Your task to perform on an android device: toggle javascript in the chrome app Image 0: 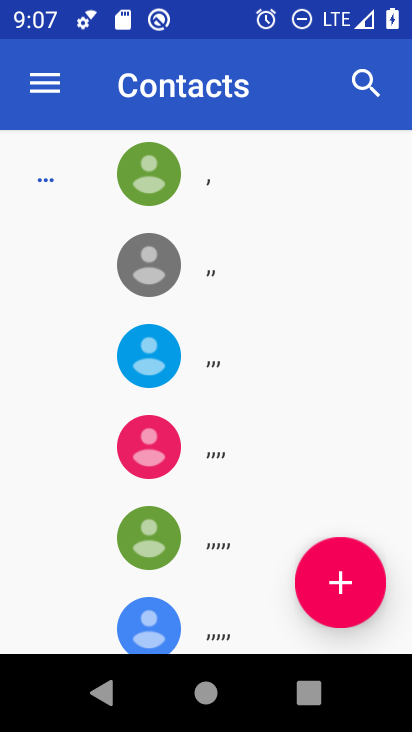
Step 0: press home button
Your task to perform on an android device: toggle javascript in the chrome app Image 1: 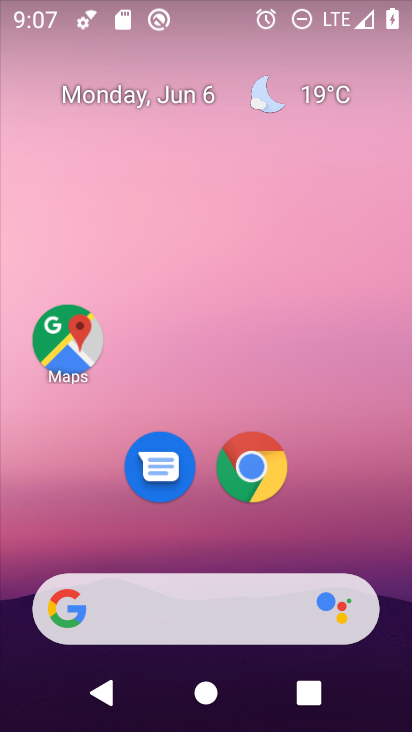
Step 1: drag from (342, 518) to (340, 146)
Your task to perform on an android device: toggle javascript in the chrome app Image 2: 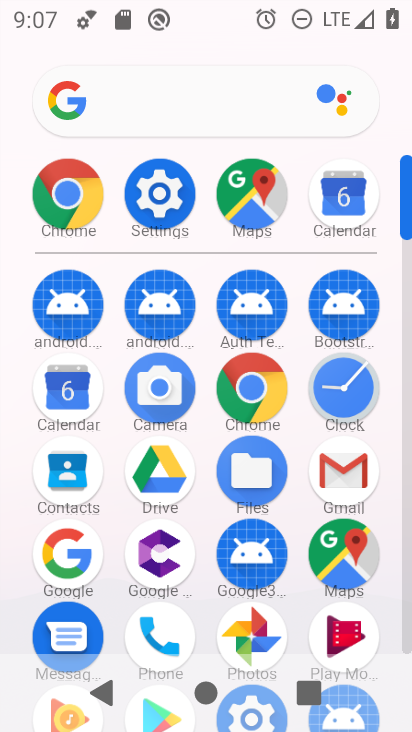
Step 2: click (261, 396)
Your task to perform on an android device: toggle javascript in the chrome app Image 3: 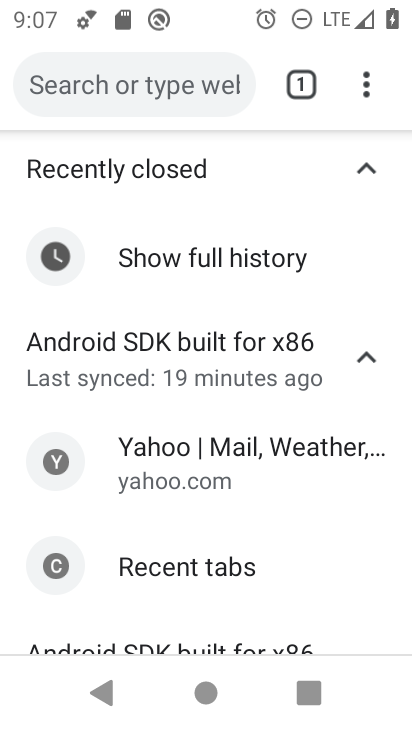
Step 3: click (368, 84)
Your task to perform on an android device: toggle javascript in the chrome app Image 4: 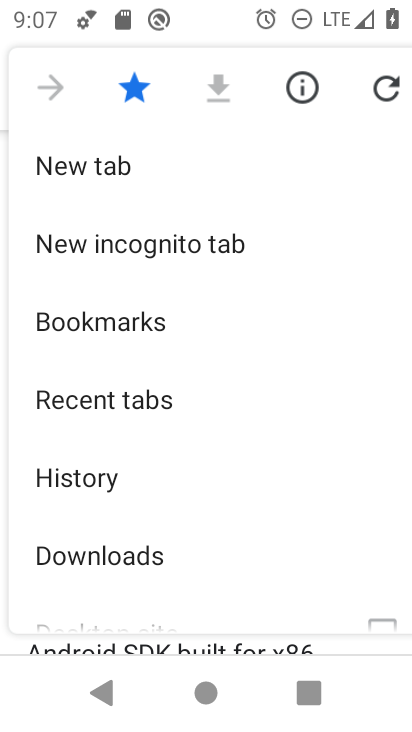
Step 4: drag from (290, 497) to (328, 305)
Your task to perform on an android device: toggle javascript in the chrome app Image 5: 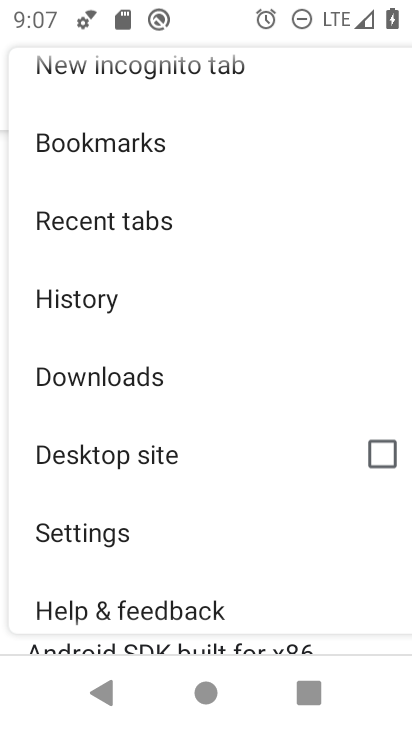
Step 5: drag from (276, 457) to (270, 315)
Your task to perform on an android device: toggle javascript in the chrome app Image 6: 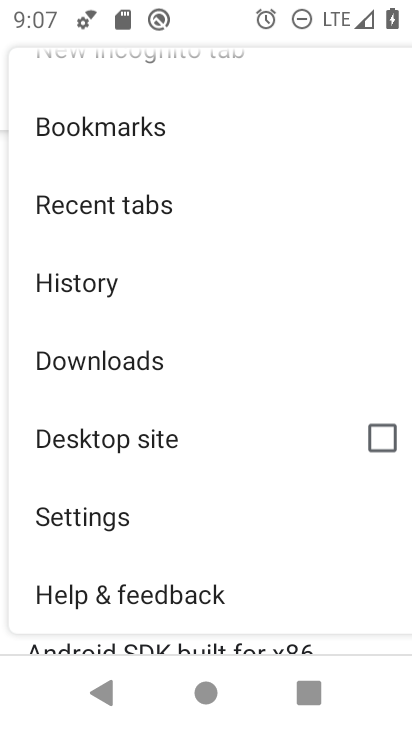
Step 6: click (116, 528)
Your task to perform on an android device: toggle javascript in the chrome app Image 7: 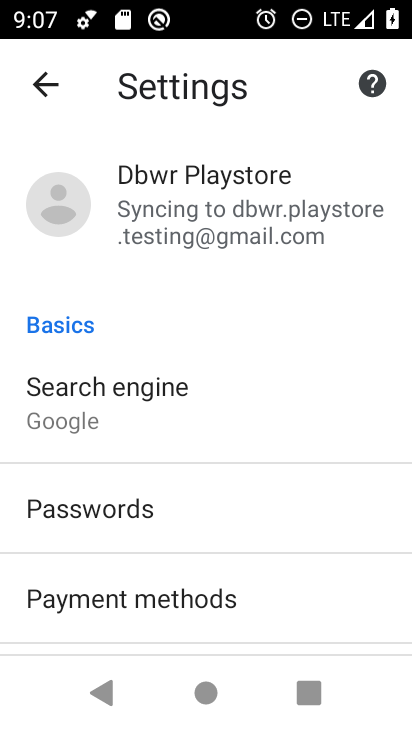
Step 7: drag from (318, 451) to (331, 332)
Your task to perform on an android device: toggle javascript in the chrome app Image 8: 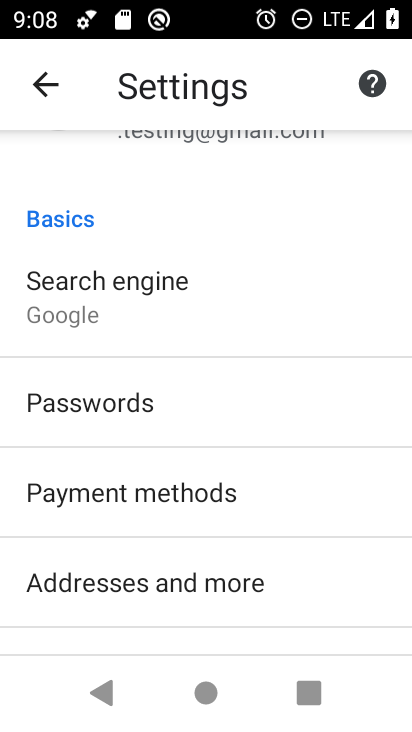
Step 8: drag from (351, 510) to (366, 349)
Your task to perform on an android device: toggle javascript in the chrome app Image 9: 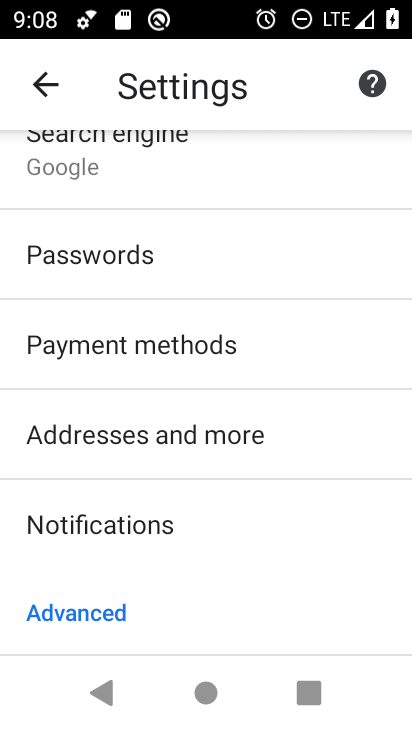
Step 9: drag from (340, 503) to (334, 347)
Your task to perform on an android device: toggle javascript in the chrome app Image 10: 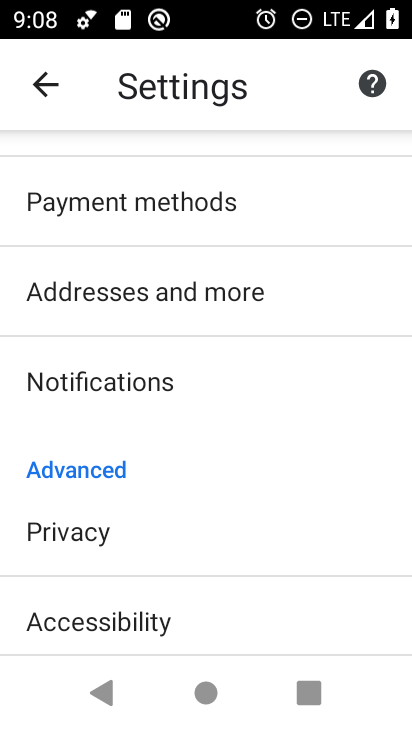
Step 10: drag from (325, 470) to (324, 346)
Your task to perform on an android device: toggle javascript in the chrome app Image 11: 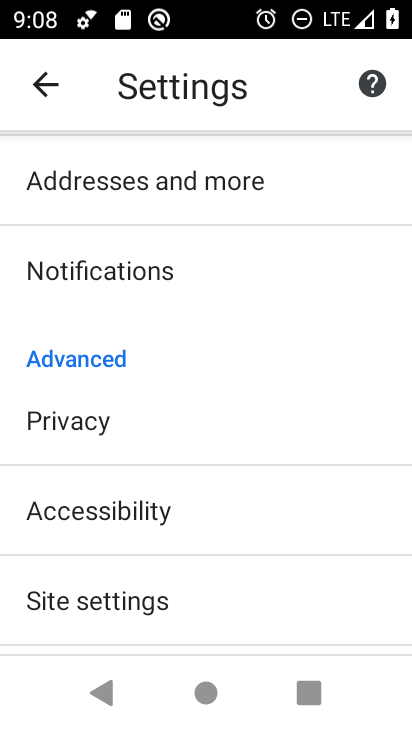
Step 11: drag from (315, 496) to (316, 443)
Your task to perform on an android device: toggle javascript in the chrome app Image 12: 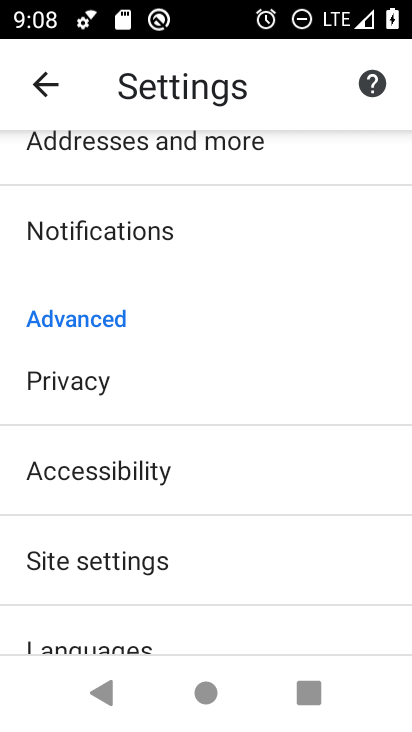
Step 12: drag from (316, 421) to (335, 347)
Your task to perform on an android device: toggle javascript in the chrome app Image 13: 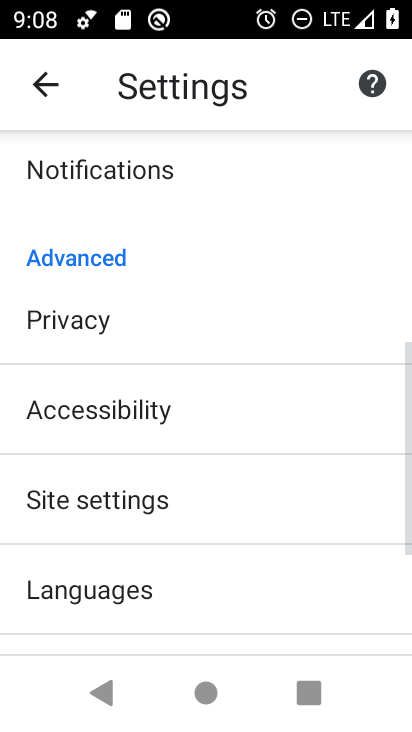
Step 13: drag from (336, 473) to (322, 361)
Your task to perform on an android device: toggle javascript in the chrome app Image 14: 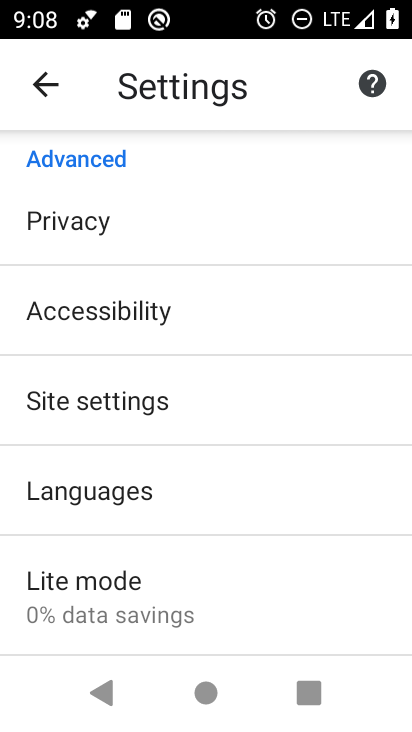
Step 14: drag from (318, 448) to (316, 349)
Your task to perform on an android device: toggle javascript in the chrome app Image 15: 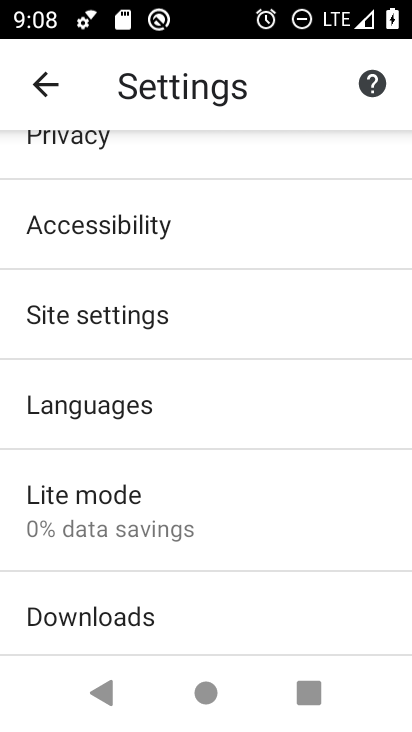
Step 15: click (264, 330)
Your task to perform on an android device: toggle javascript in the chrome app Image 16: 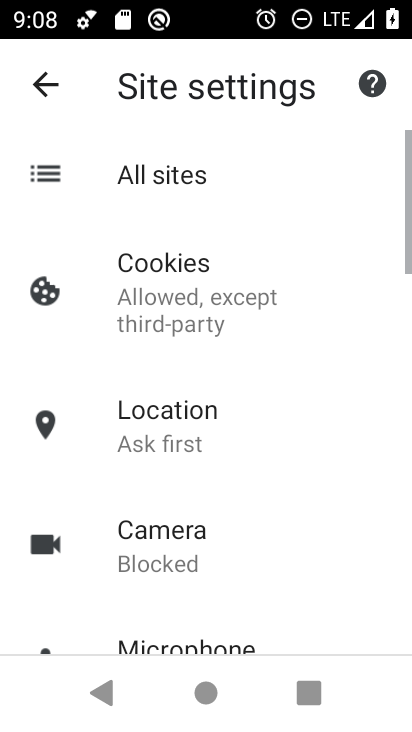
Step 16: drag from (305, 454) to (313, 367)
Your task to perform on an android device: toggle javascript in the chrome app Image 17: 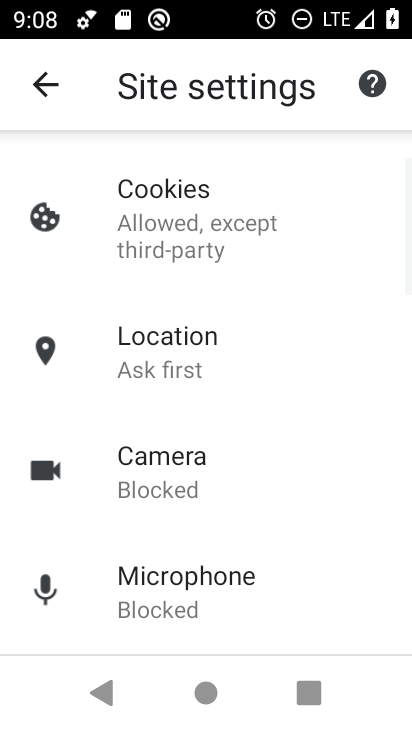
Step 17: drag from (332, 468) to (329, 360)
Your task to perform on an android device: toggle javascript in the chrome app Image 18: 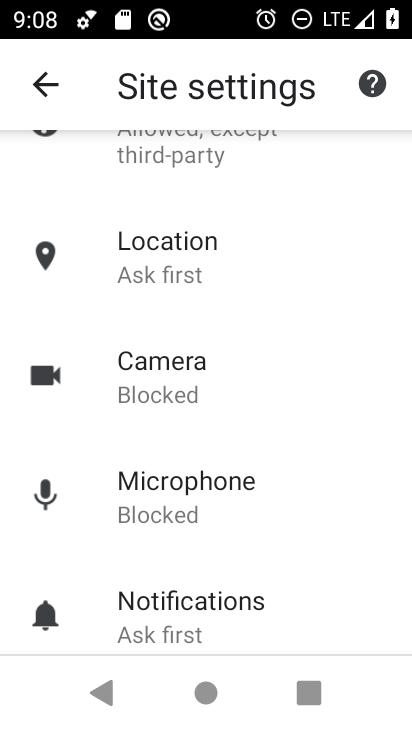
Step 18: drag from (333, 461) to (332, 354)
Your task to perform on an android device: toggle javascript in the chrome app Image 19: 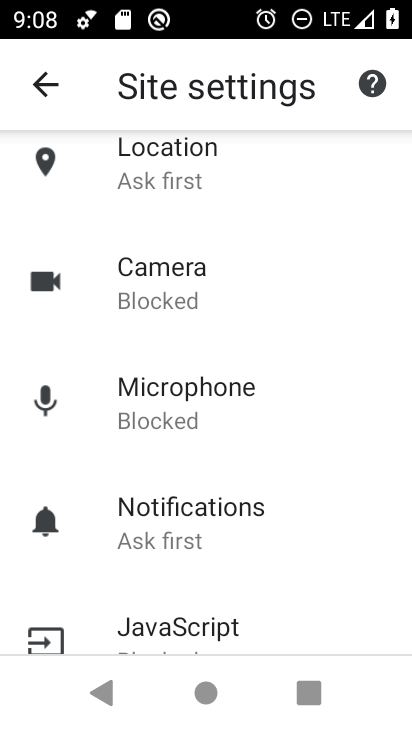
Step 19: drag from (336, 453) to (323, 313)
Your task to perform on an android device: toggle javascript in the chrome app Image 20: 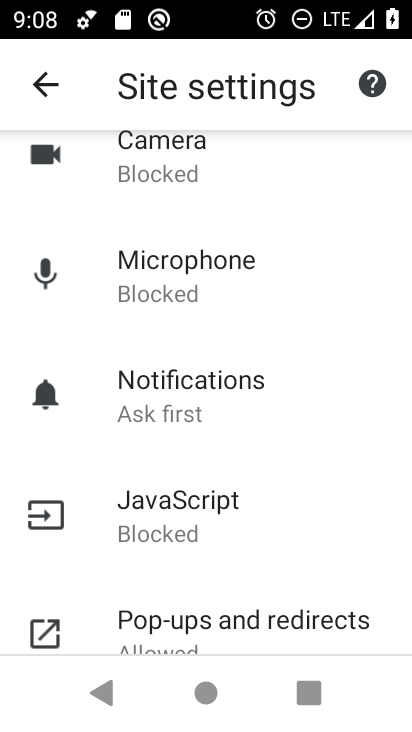
Step 20: click (284, 511)
Your task to perform on an android device: toggle javascript in the chrome app Image 21: 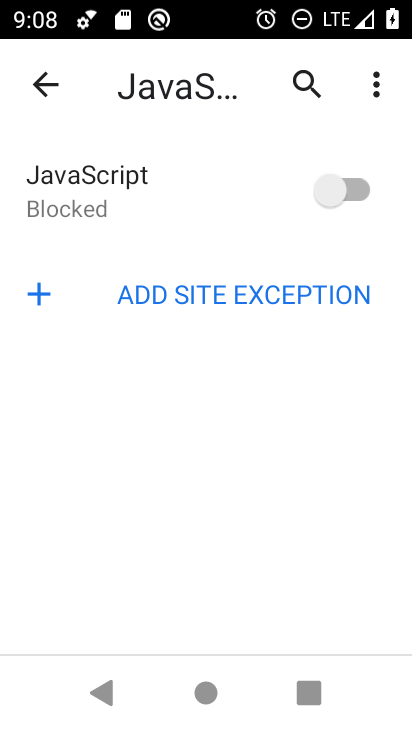
Step 21: click (340, 212)
Your task to perform on an android device: toggle javascript in the chrome app Image 22: 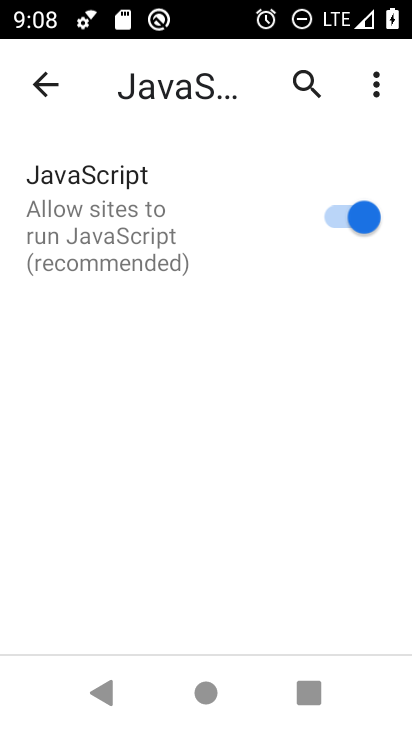
Step 22: task complete